Your task to perform on an android device: Open accessibility settings Image 0: 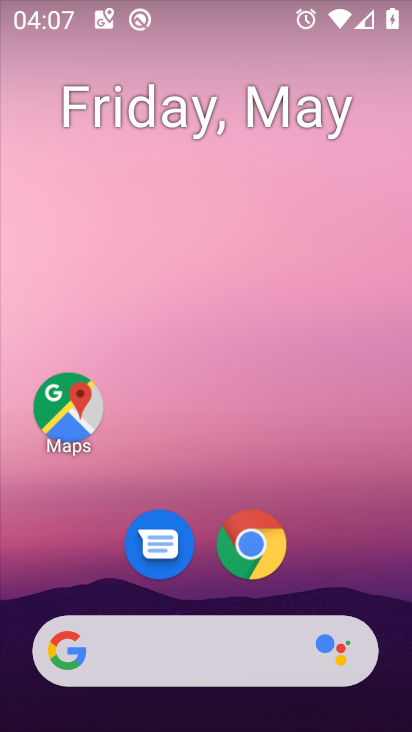
Step 0: drag from (262, 610) to (172, 63)
Your task to perform on an android device: Open accessibility settings Image 1: 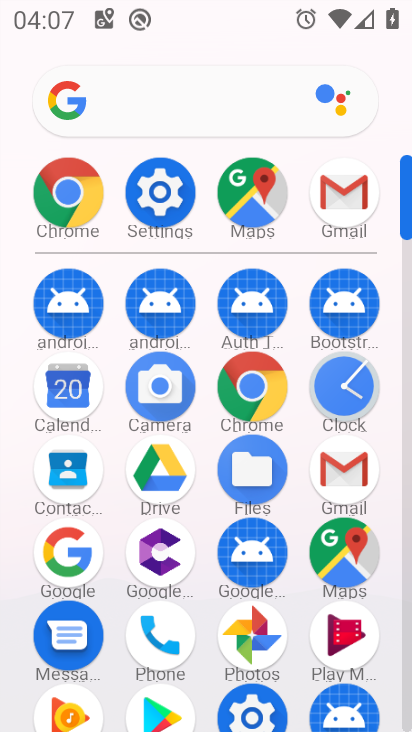
Step 1: click (64, 197)
Your task to perform on an android device: Open accessibility settings Image 2: 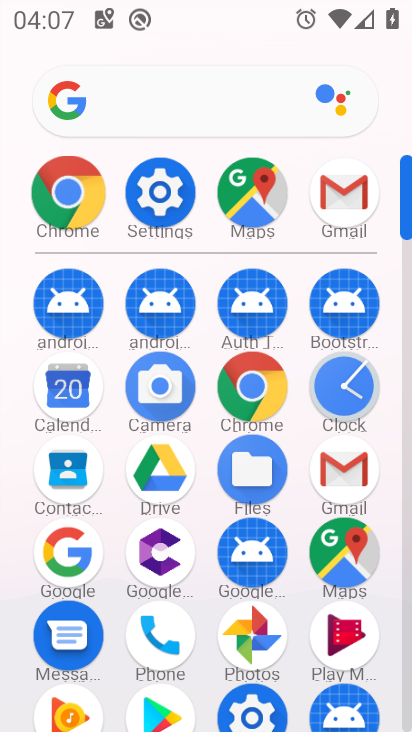
Step 2: click (64, 197)
Your task to perform on an android device: Open accessibility settings Image 3: 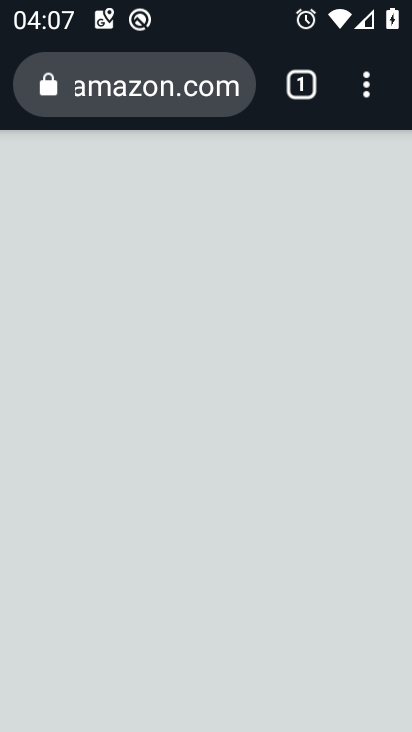
Step 3: click (366, 100)
Your task to perform on an android device: Open accessibility settings Image 4: 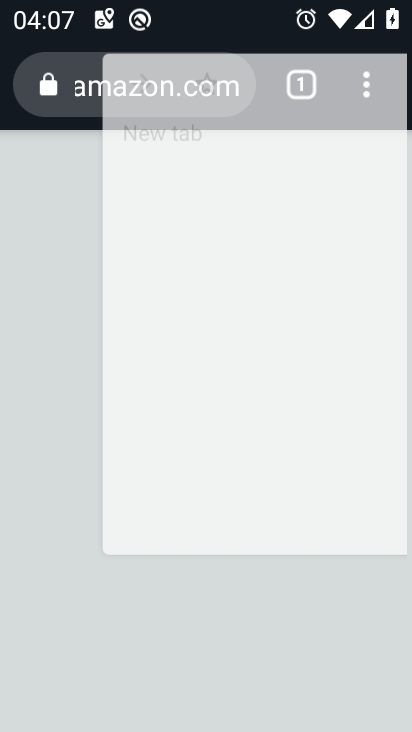
Step 4: click (366, 100)
Your task to perform on an android device: Open accessibility settings Image 5: 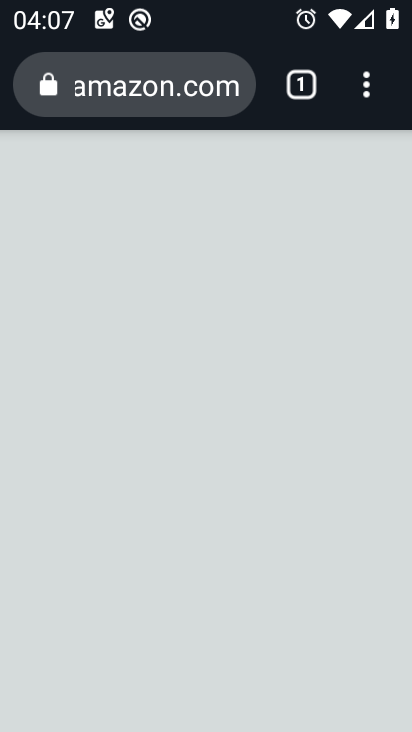
Step 5: press back button
Your task to perform on an android device: Open accessibility settings Image 6: 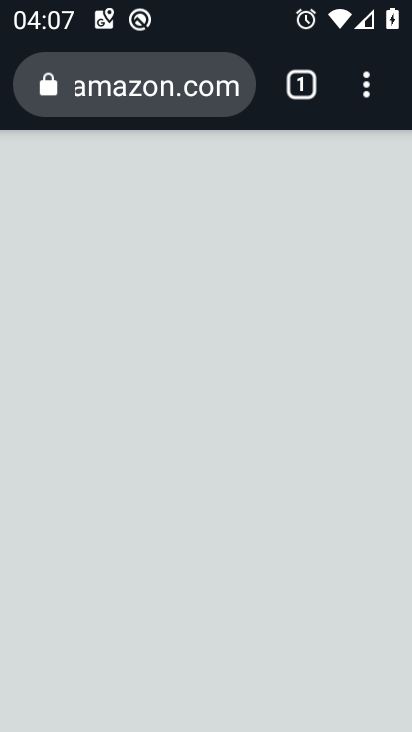
Step 6: press back button
Your task to perform on an android device: Open accessibility settings Image 7: 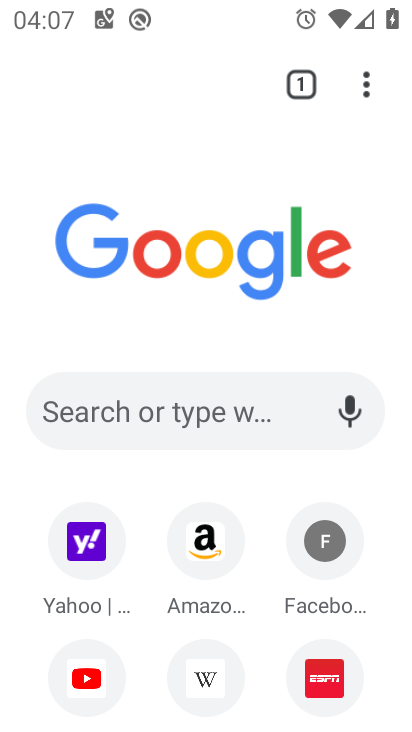
Step 7: press back button
Your task to perform on an android device: Open accessibility settings Image 8: 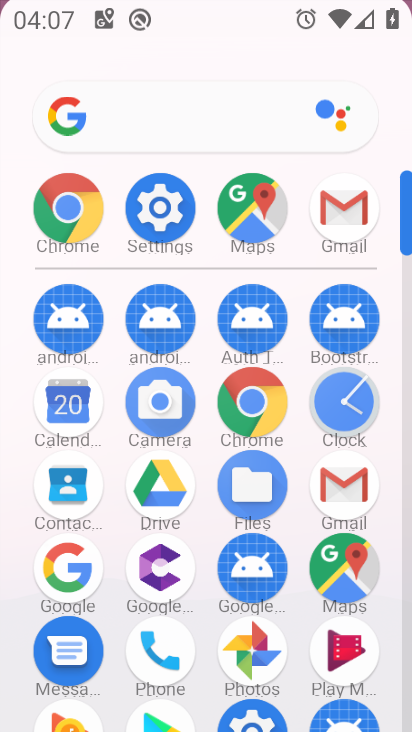
Step 8: press back button
Your task to perform on an android device: Open accessibility settings Image 9: 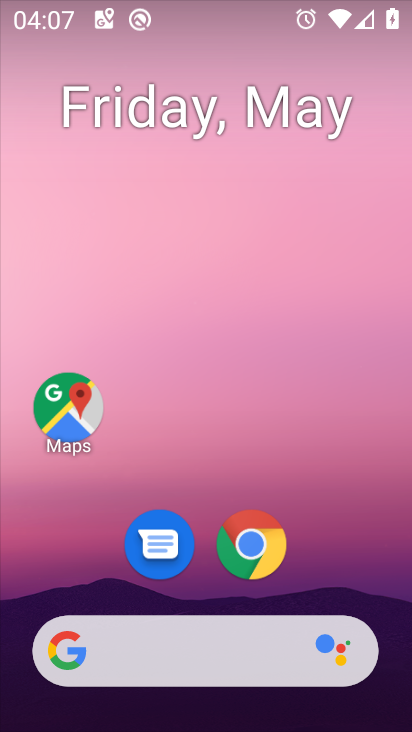
Step 9: drag from (234, 716) to (86, 60)
Your task to perform on an android device: Open accessibility settings Image 10: 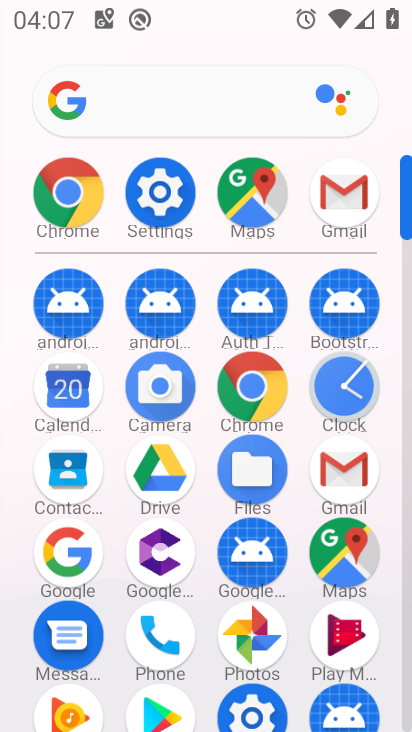
Step 10: click (165, 192)
Your task to perform on an android device: Open accessibility settings Image 11: 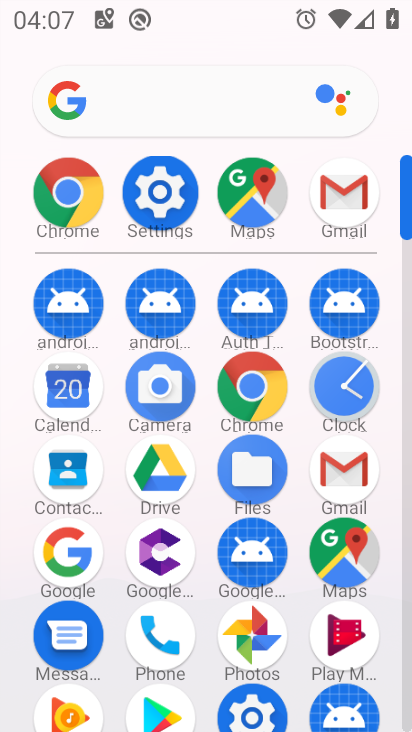
Step 11: click (165, 191)
Your task to perform on an android device: Open accessibility settings Image 12: 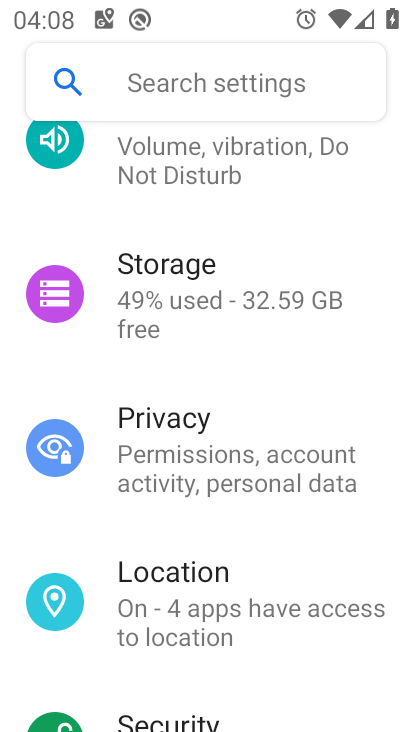
Step 12: click (165, 190)
Your task to perform on an android device: Open accessibility settings Image 13: 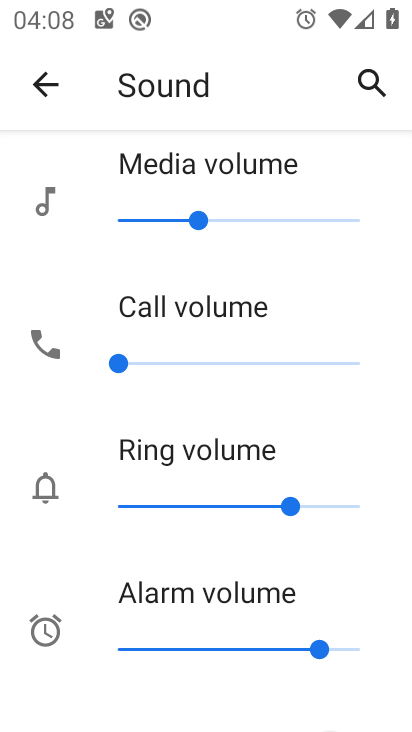
Step 13: click (37, 63)
Your task to perform on an android device: Open accessibility settings Image 14: 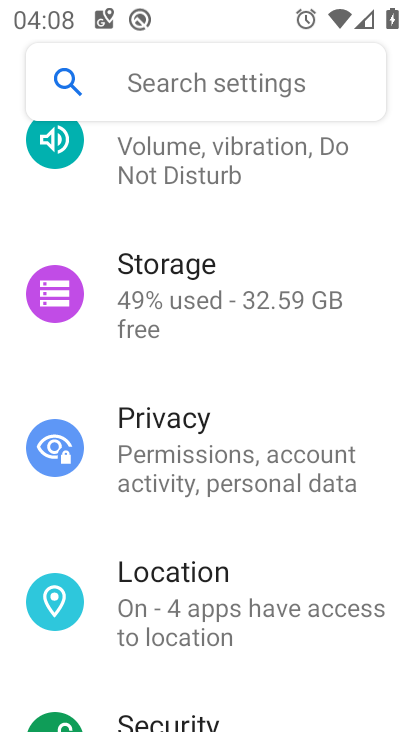
Step 14: click (45, 86)
Your task to perform on an android device: Open accessibility settings Image 15: 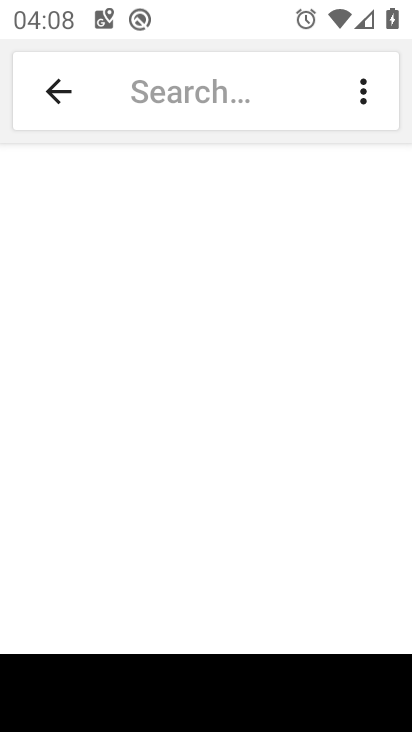
Step 15: drag from (209, 642) to (138, 199)
Your task to perform on an android device: Open accessibility settings Image 16: 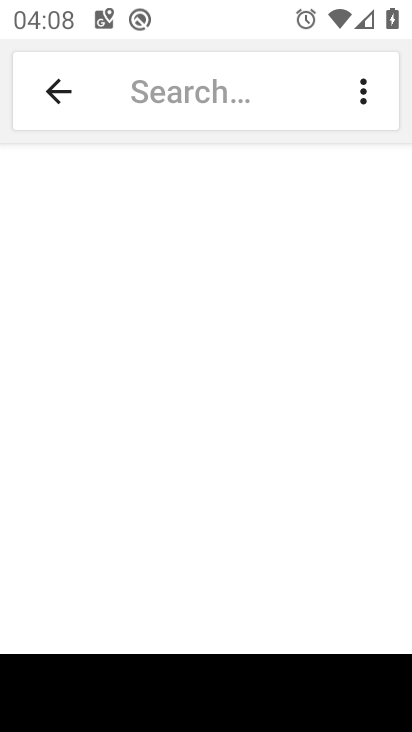
Step 16: click (55, 85)
Your task to perform on an android device: Open accessibility settings Image 17: 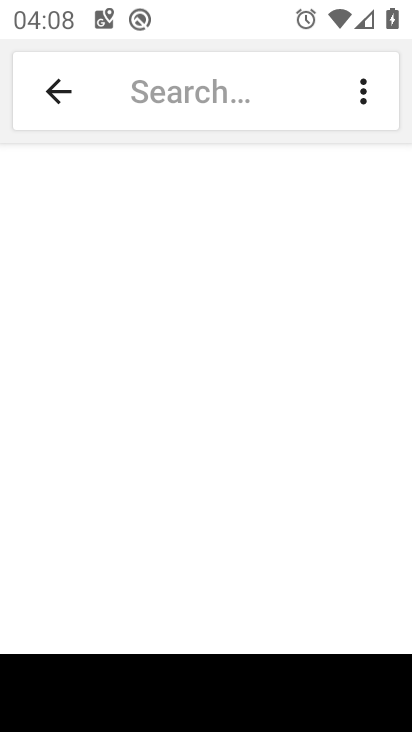
Step 17: click (55, 85)
Your task to perform on an android device: Open accessibility settings Image 18: 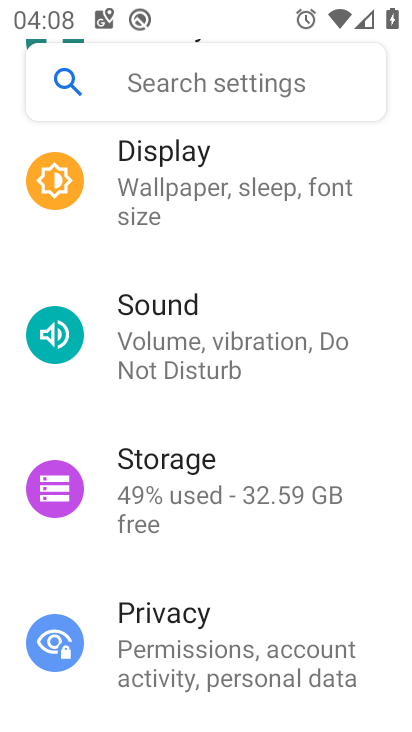
Step 18: drag from (230, 566) to (149, 97)
Your task to perform on an android device: Open accessibility settings Image 19: 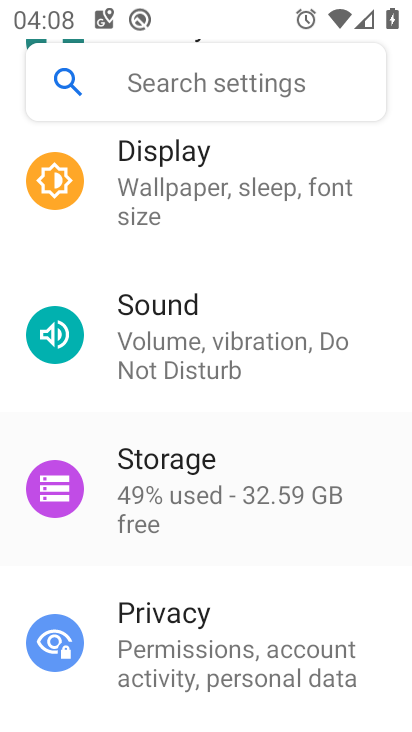
Step 19: drag from (227, 451) to (149, 117)
Your task to perform on an android device: Open accessibility settings Image 20: 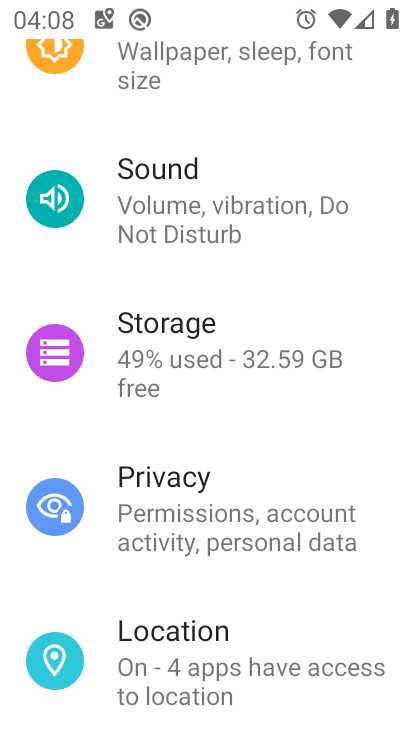
Step 20: drag from (228, 454) to (183, 149)
Your task to perform on an android device: Open accessibility settings Image 21: 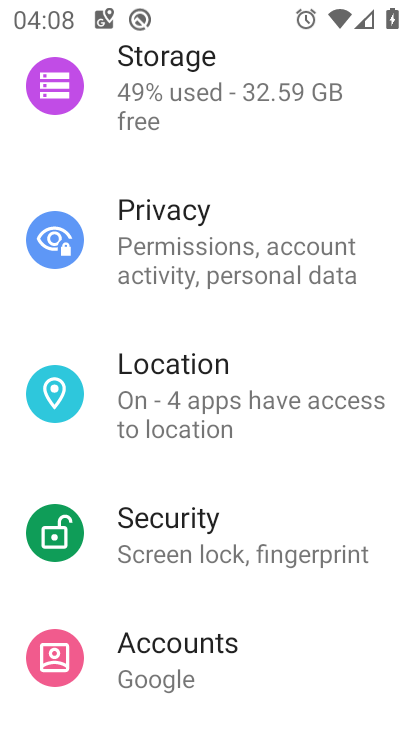
Step 21: drag from (214, 488) to (158, 95)
Your task to perform on an android device: Open accessibility settings Image 22: 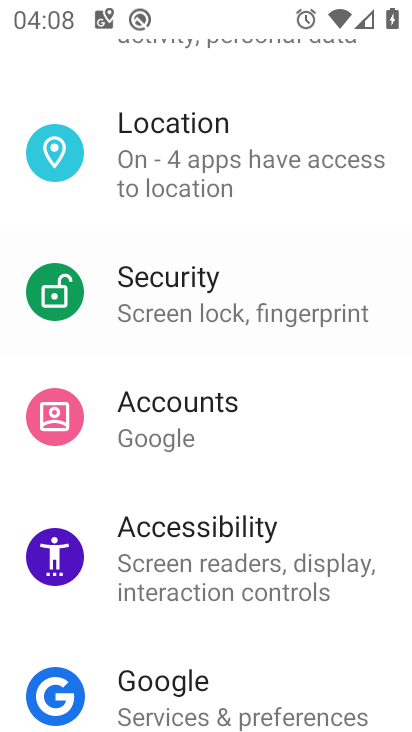
Step 22: drag from (224, 492) to (185, 98)
Your task to perform on an android device: Open accessibility settings Image 23: 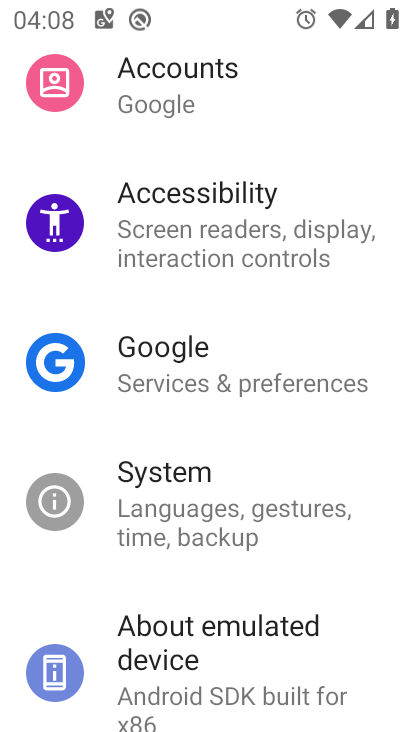
Step 23: drag from (224, 556) to (171, 159)
Your task to perform on an android device: Open accessibility settings Image 24: 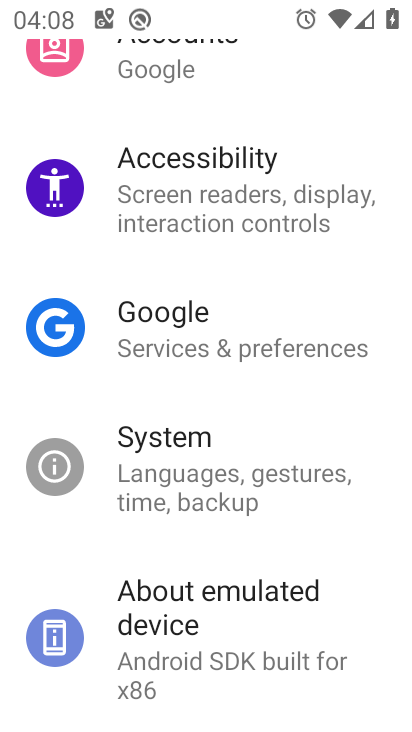
Step 24: click (183, 199)
Your task to perform on an android device: Open accessibility settings Image 25: 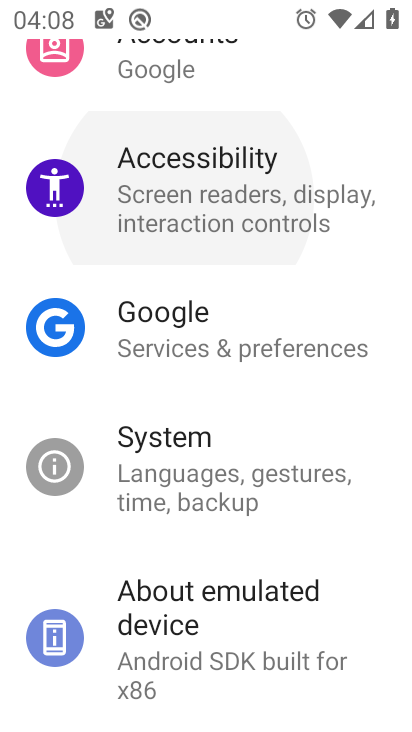
Step 25: click (183, 199)
Your task to perform on an android device: Open accessibility settings Image 26: 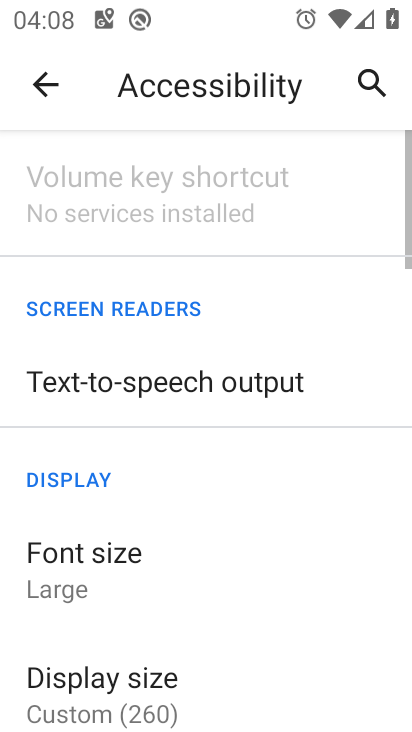
Step 26: click (201, 217)
Your task to perform on an android device: Open accessibility settings Image 27: 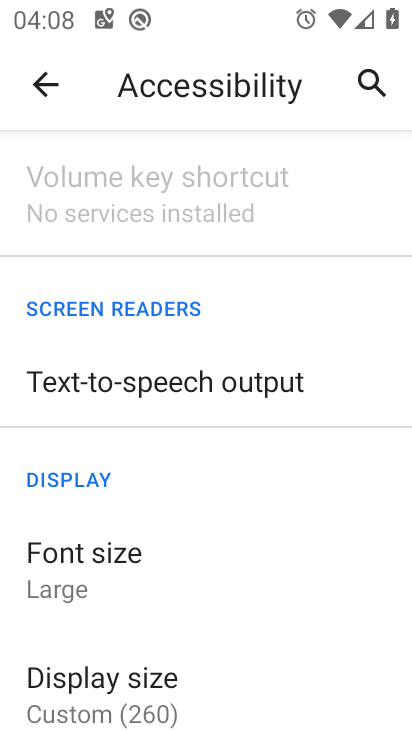
Step 27: task complete